Your task to perform on an android device: Check the news Image 0: 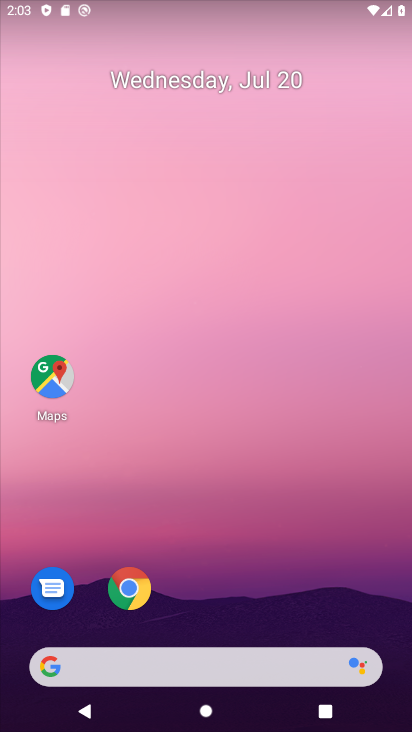
Step 0: click (230, 148)
Your task to perform on an android device: Check the news Image 1: 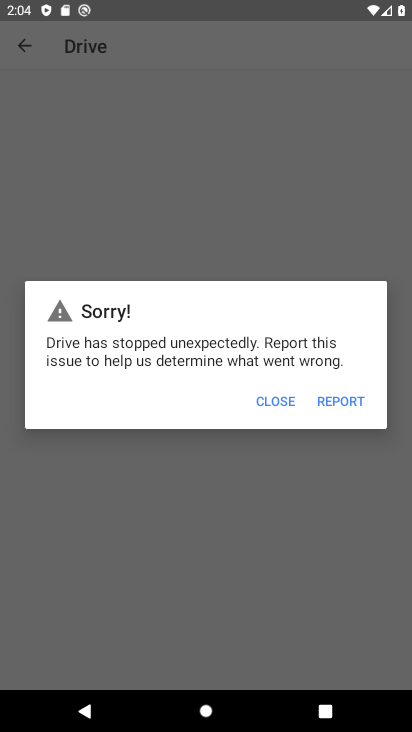
Step 1: click (270, 395)
Your task to perform on an android device: Check the news Image 2: 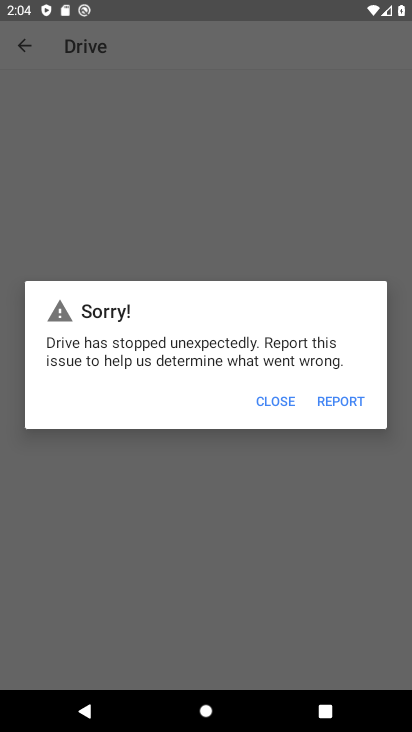
Step 2: click (270, 395)
Your task to perform on an android device: Check the news Image 3: 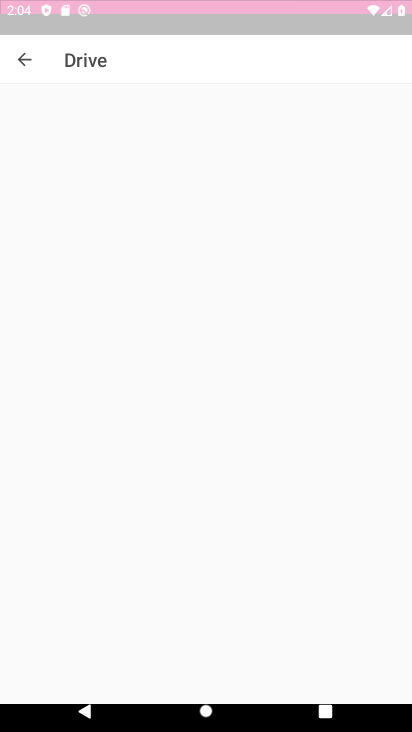
Step 3: click (270, 394)
Your task to perform on an android device: Check the news Image 4: 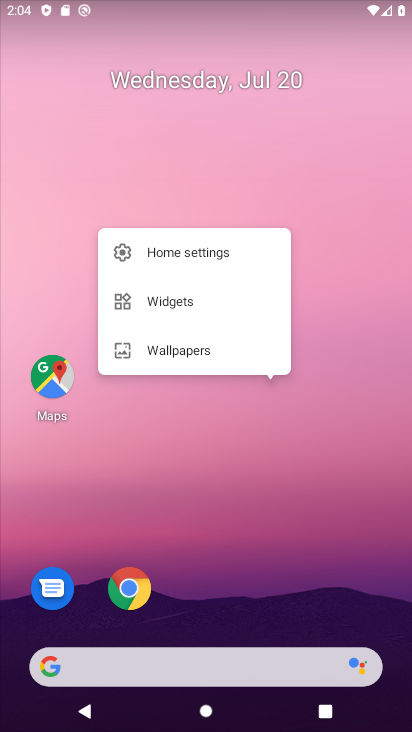
Step 4: drag from (324, 577) to (200, 317)
Your task to perform on an android device: Check the news Image 5: 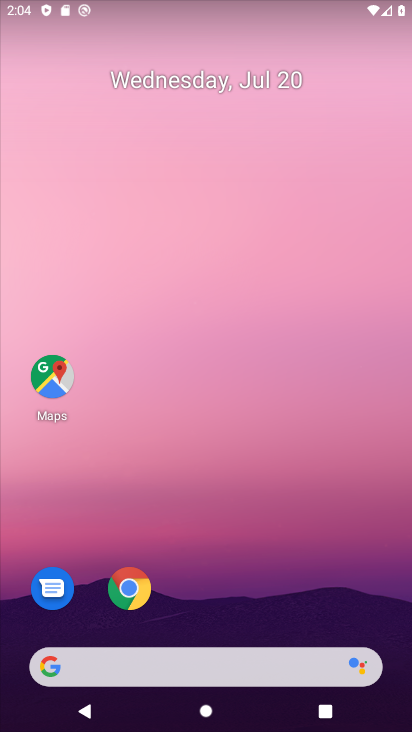
Step 5: click (27, 298)
Your task to perform on an android device: Check the news Image 6: 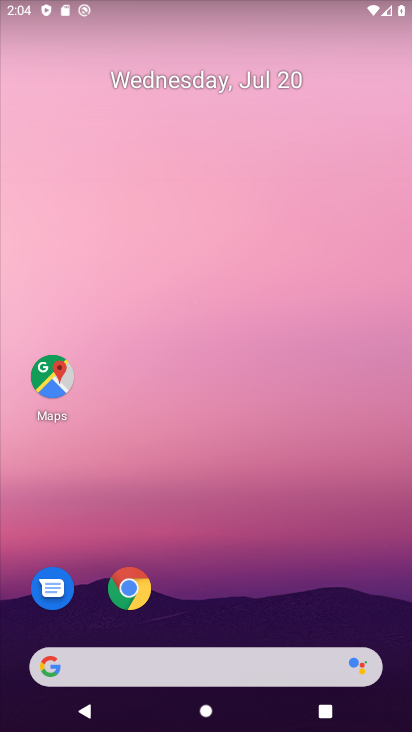
Step 6: click (152, 539)
Your task to perform on an android device: Check the news Image 7: 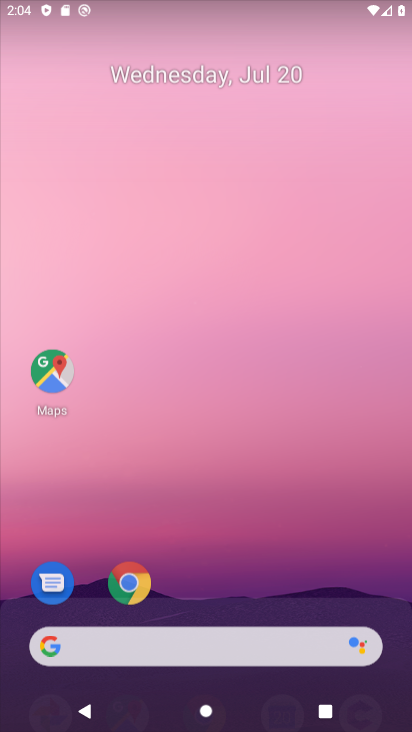
Step 7: drag from (281, 475) to (218, 25)
Your task to perform on an android device: Check the news Image 8: 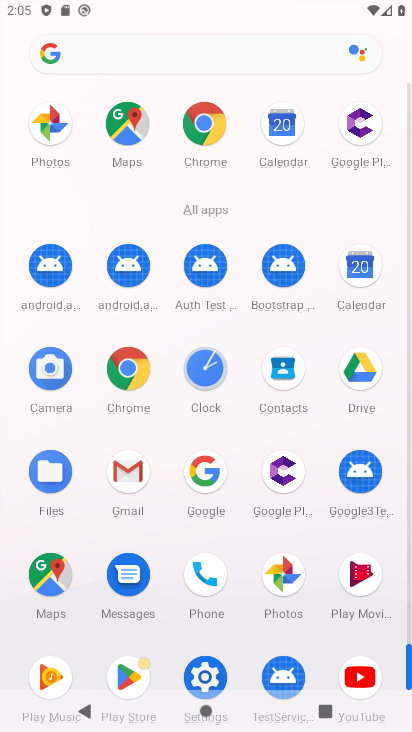
Step 8: click (210, 134)
Your task to perform on an android device: Check the news Image 9: 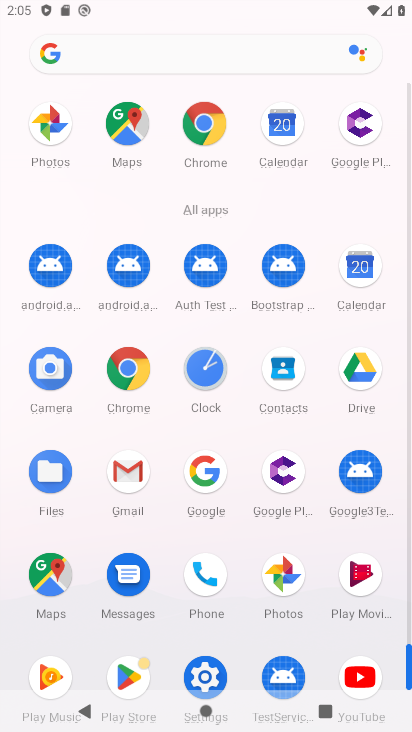
Step 9: click (211, 135)
Your task to perform on an android device: Check the news Image 10: 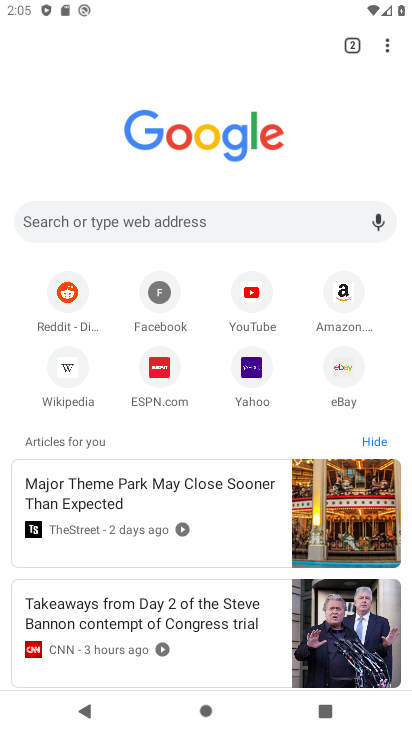
Step 10: task complete